Your task to perform on an android device: Open sound settings Image 0: 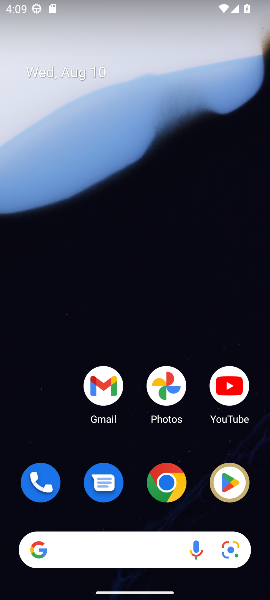
Step 0: drag from (63, 404) to (76, 74)
Your task to perform on an android device: Open sound settings Image 1: 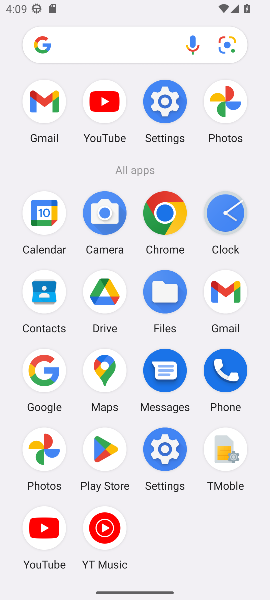
Step 1: click (159, 96)
Your task to perform on an android device: Open sound settings Image 2: 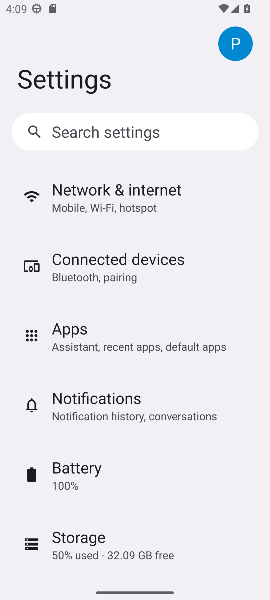
Step 2: drag from (144, 466) to (184, 44)
Your task to perform on an android device: Open sound settings Image 3: 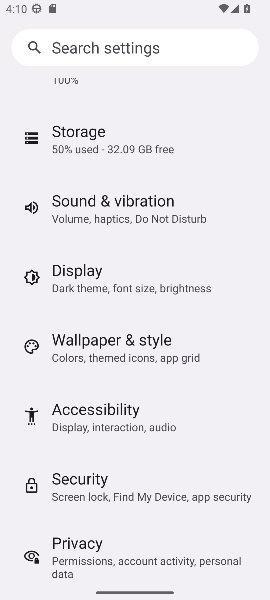
Step 3: click (164, 215)
Your task to perform on an android device: Open sound settings Image 4: 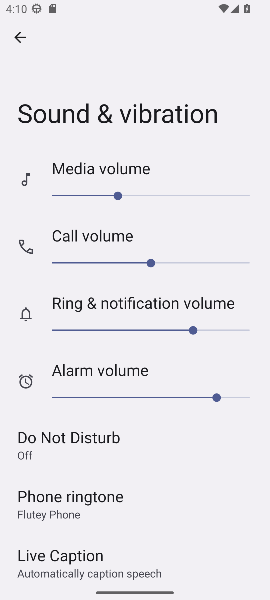
Step 4: task complete